Your task to perform on an android device: turn notification dots off Image 0: 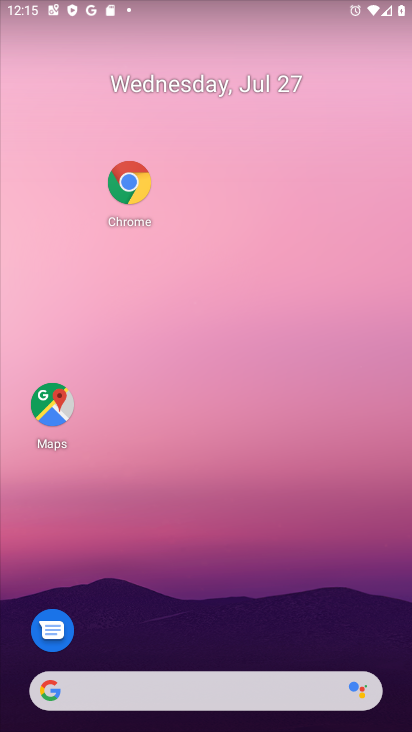
Step 0: drag from (113, 723) to (208, 43)
Your task to perform on an android device: turn notification dots off Image 1: 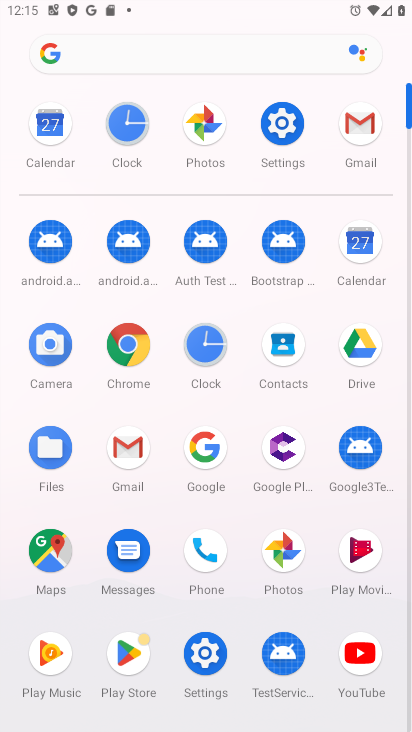
Step 1: click (275, 126)
Your task to perform on an android device: turn notification dots off Image 2: 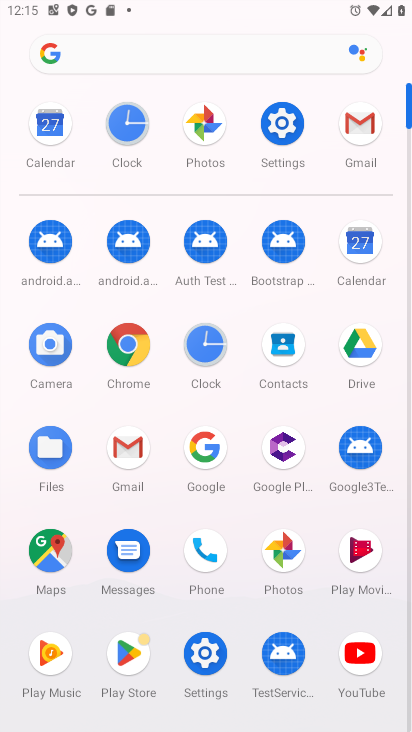
Step 2: click (275, 126)
Your task to perform on an android device: turn notification dots off Image 3: 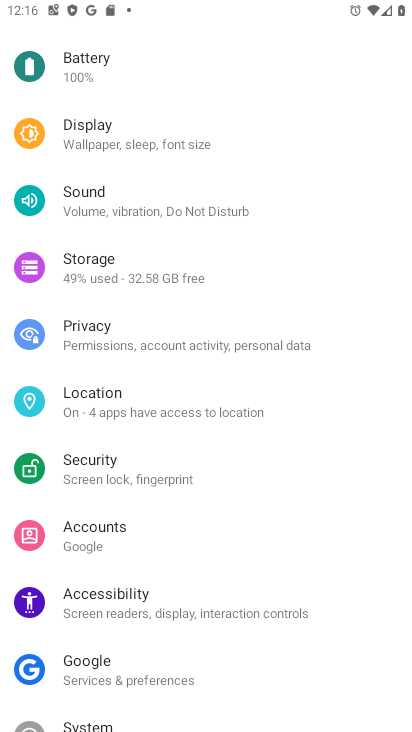
Step 3: drag from (330, 164) to (330, 699)
Your task to perform on an android device: turn notification dots off Image 4: 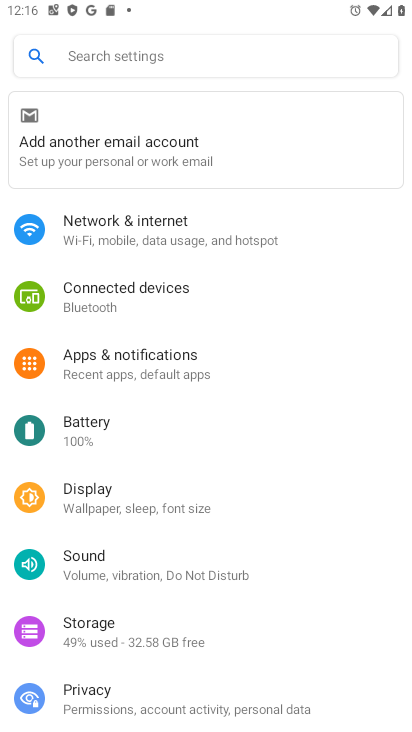
Step 4: click (166, 372)
Your task to perform on an android device: turn notification dots off Image 5: 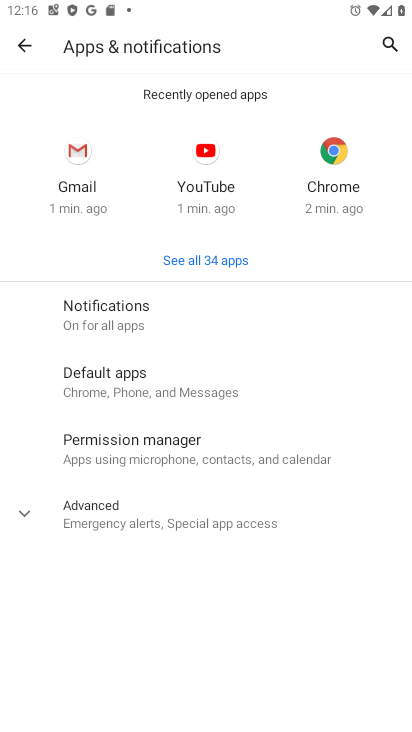
Step 5: click (173, 301)
Your task to perform on an android device: turn notification dots off Image 6: 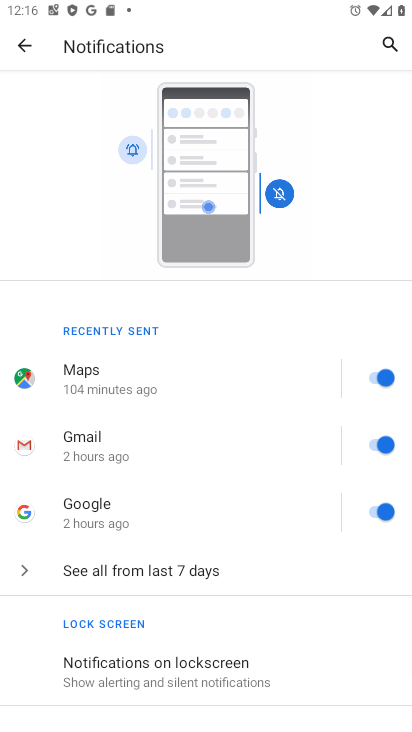
Step 6: drag from (315, 645) to (351, 39)
Your task to perform on an android device: turn notification dots off Image 7: 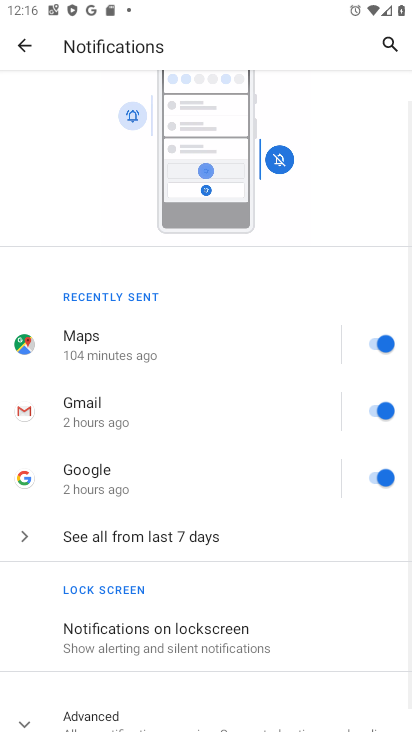
Step 7: click (264, 707)
Your task to perform on an android device: turn notification dots off Image 8: 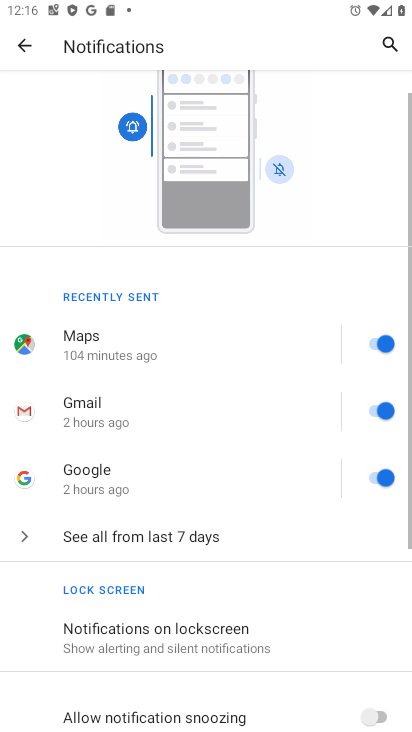
Step 8: drag from (291, 690) to (309, 20)
Your task to perform on an android device: turn notification dots off Image 9: 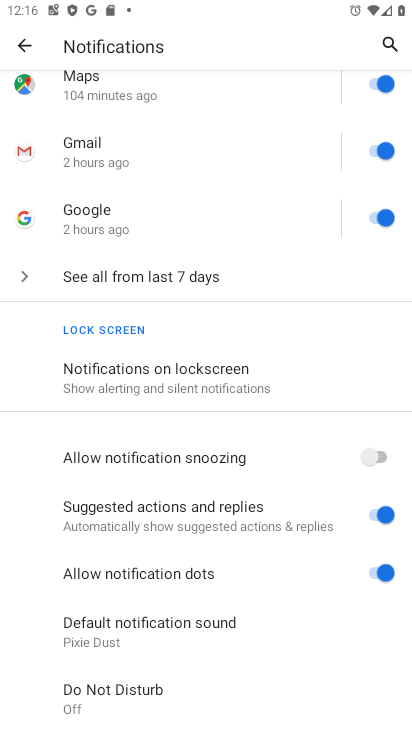
Step 9: click (384, 560)
Your task to perform on an android device: turn notification dots off Image 10: 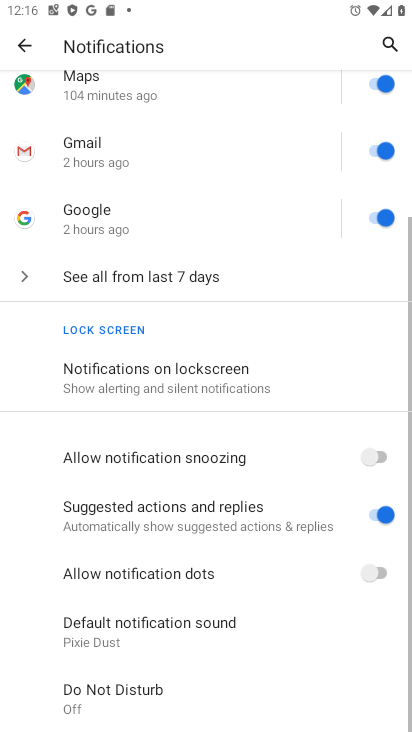
Step 10: task complete